Your task to perform on an android device: set the timer Image 0: 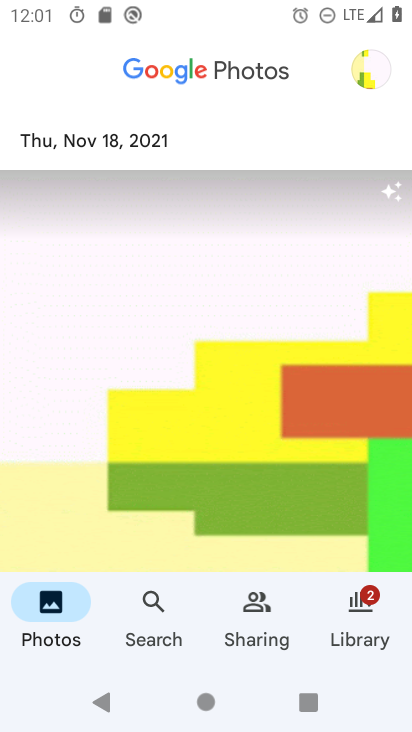
Step 0: press home button
Your task to perform on an android device: set the timer Image 1: 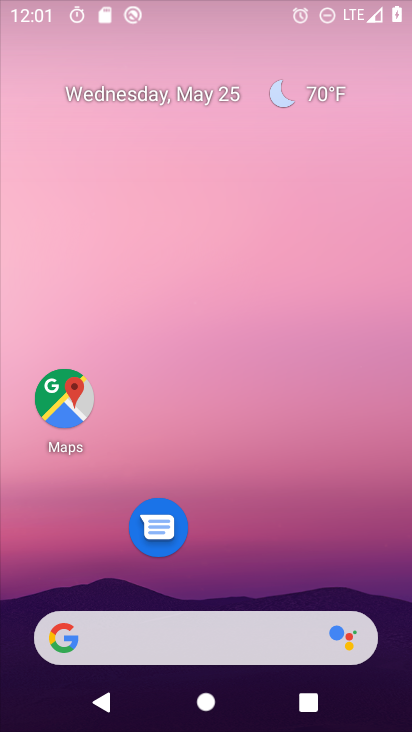
Step 1: drag from (241, 564) to (266, 95)
Your task to perform on an android device: set the timer Image 2: 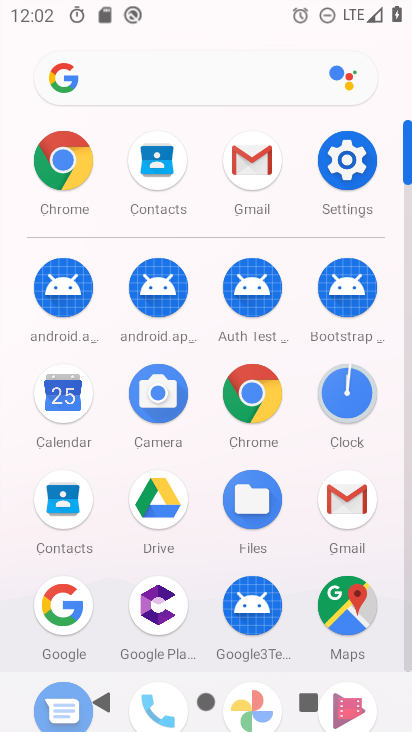
Step 2: click (350, 395)
Your task to perform on an android device: set the timer Image 3: 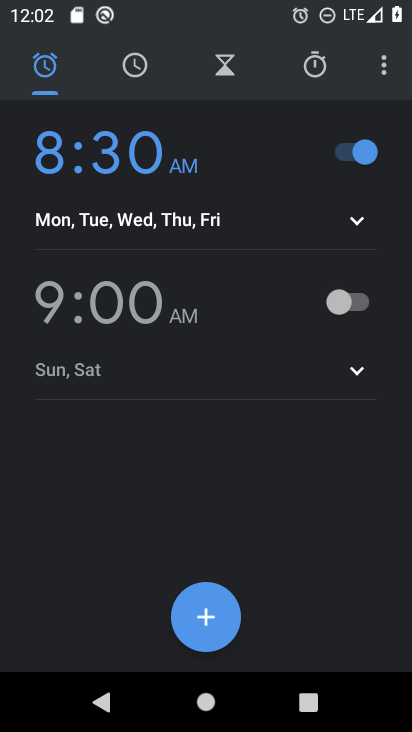
Step 3: click (224, 70)
Your task to perform on an android device: set the timer Image 4: 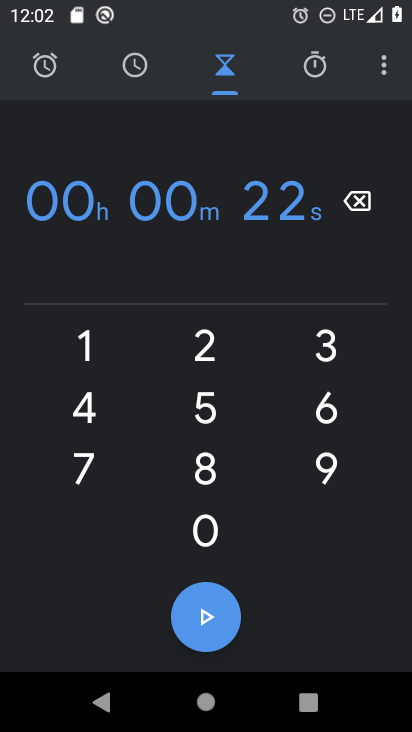
Step 4: click (206, 336)
Your task to perform on an android device: set the timer Image 5: 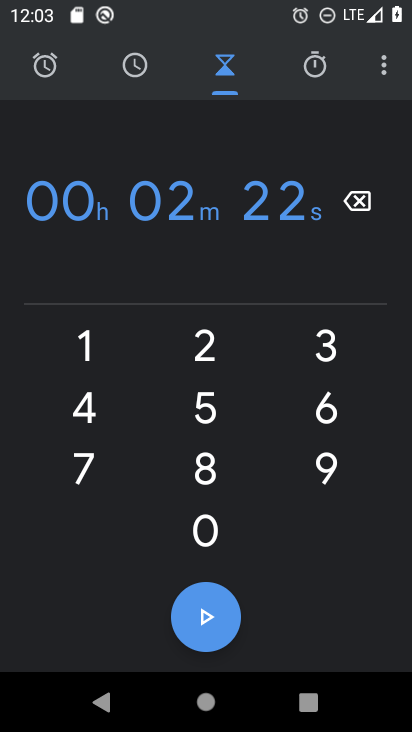
Step 5: task complete